Your task to perform on an android device: Open the calendar and show me this week's events Image 0: 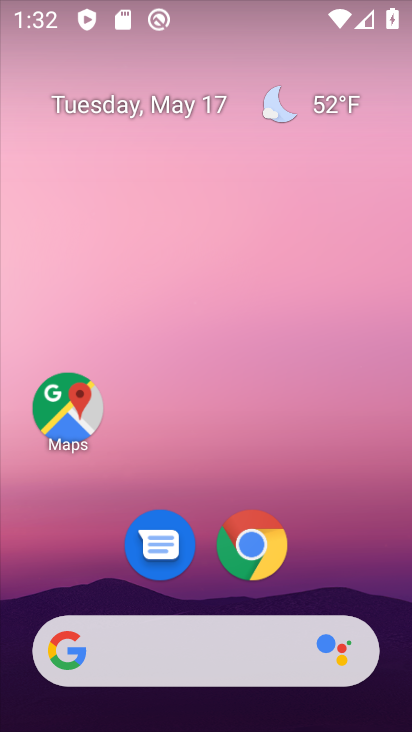
Step 0: drag from (368, 305) to (378, 74)
Your task to perform on an android device: Open the calendar and show me this week's events Image 1: 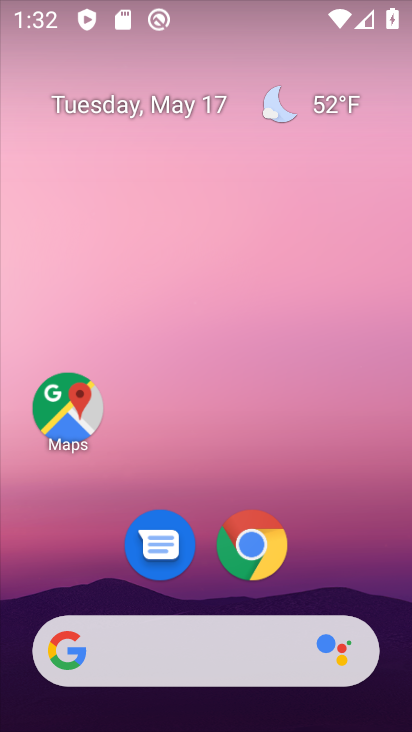
Step 1: drag from (366, 513) to (356, 20)
Your task to perform on an android device: Open the calendar and show me this week's events Image 2: 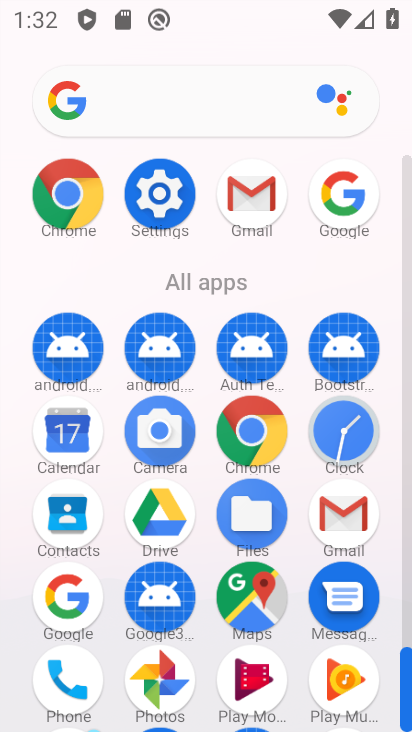
Step 2: click (81, 429)
Your task to perform on an android device: Open the calendar and show me this week's events Image 3: 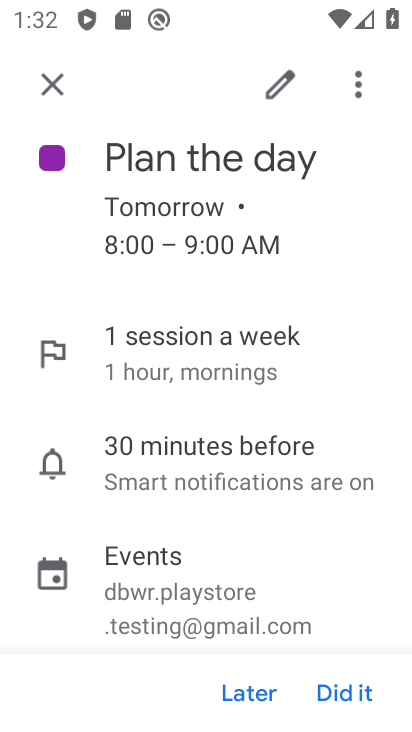
Step 3: click (60, 82)
Your task to perform on an android device: Open the calendar and show me this week's events Image 4: 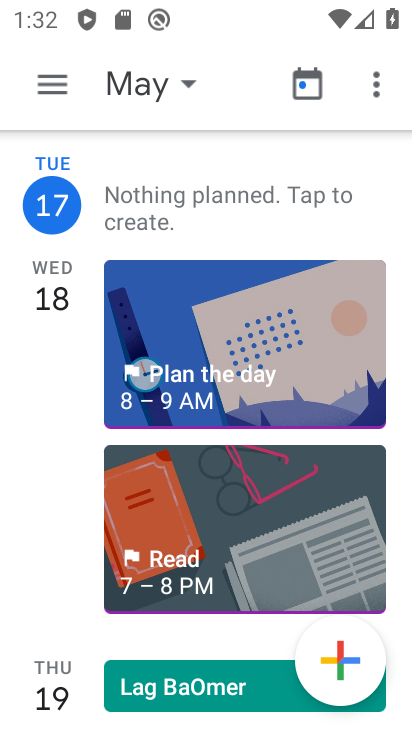
Step 4: task complete